Your task to perform on an android device: Search for sushi restaurants on Maps Image 0: 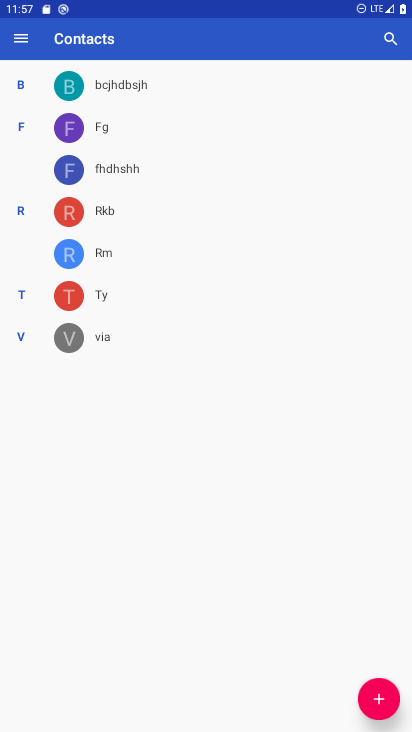
Step 0: press home button
Your task to perform on an android device: Search for sushi restaurants on Maps Image 1: 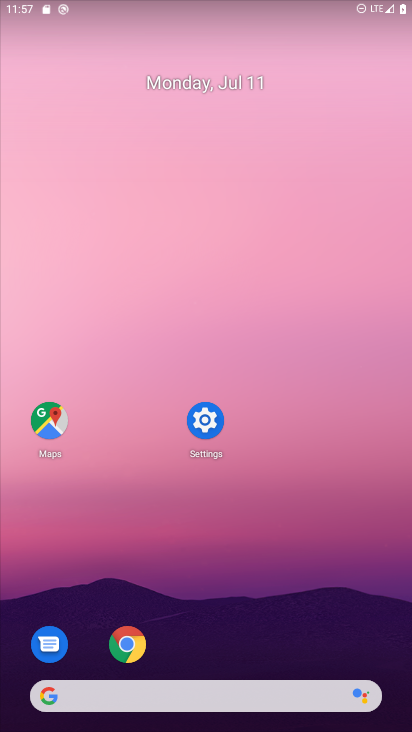
Step 1: click (51, 421)
Your task to perform on an android device: Search for sushi restaurants on Maps Image 2: 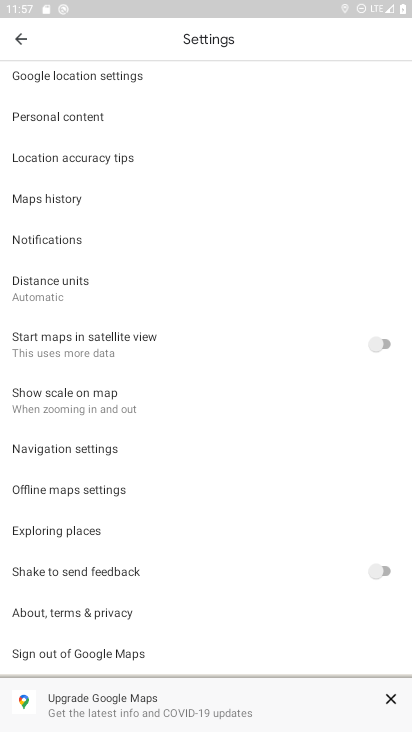
Step 2: click (19, 35)
Your task to perform on an android device: Search for sushi restaurants on Maps Image 3: 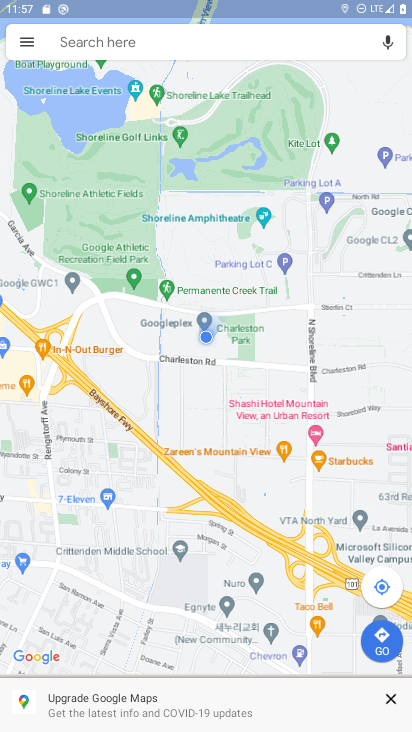
Step 3: click (95, 45)
Your task to perform on an android device: Search for sushi restaurants on Maps Image 4: 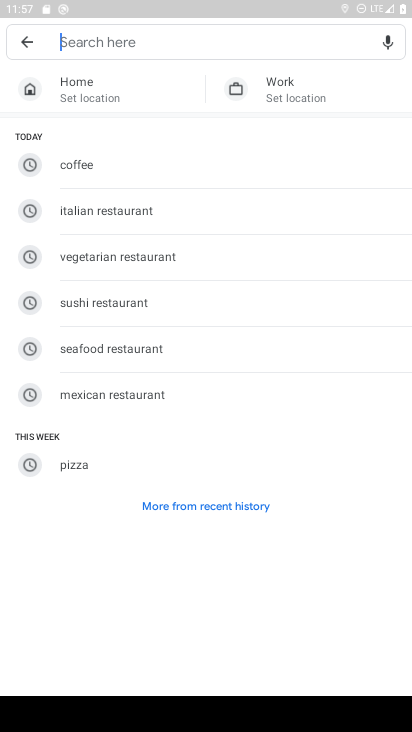
Step 4: type "sushi restaurants"
Your task to perform on an android device: Search for sushi restaurants on Maps Image 5: 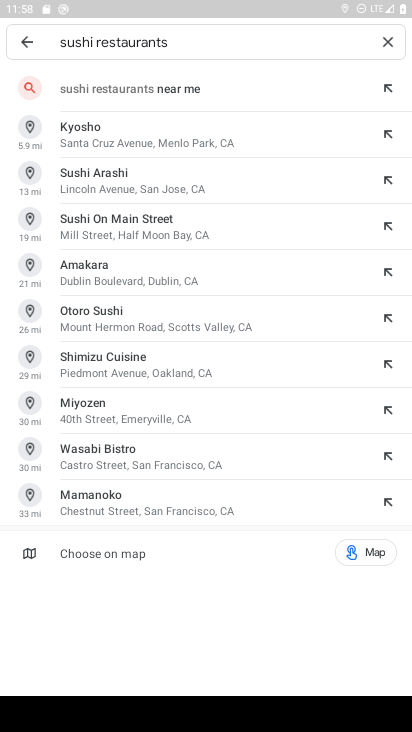
Step 5: click (143, 80)
Your task to perform on an android device: Search for sushi restaurants on Maps Image 6: 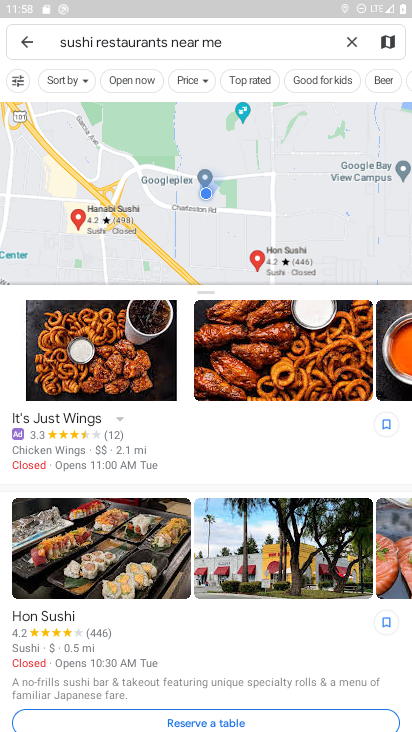
Step 6: task complete